Your task to perform on an android device: manage bookmarks in the chrome app Image 0: 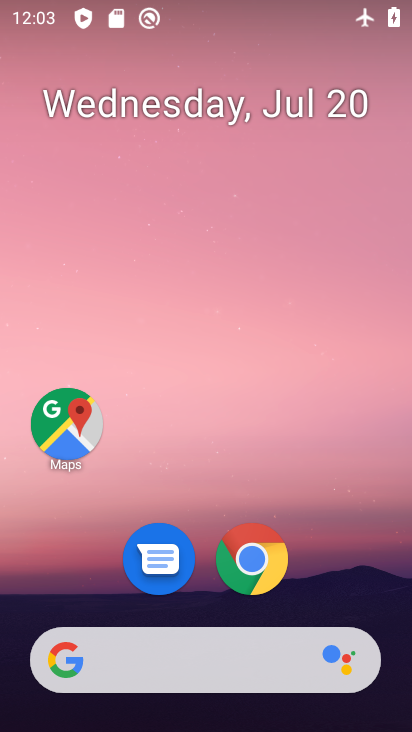
Step 0: drag from (388, 556) to (390, 148)
Your task to perform on an android device: manage bookmarks in the chrome app Image 1: 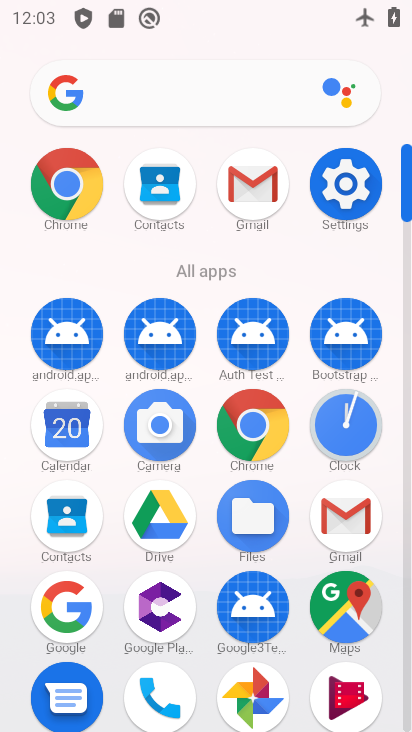
Step 1: click (250, 430)
Your task to perform on an android device: manage bookmarks in the chrome app Image 2: 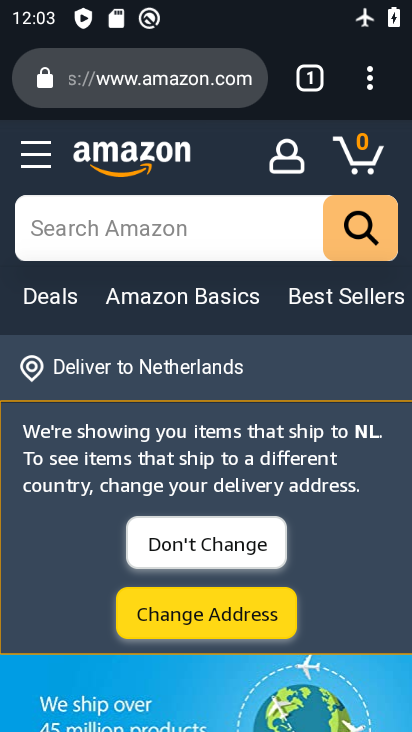
Step 2: click (373, 92)
Your task to perform on an android device: manage bookmarks in the chrome app Image 3: 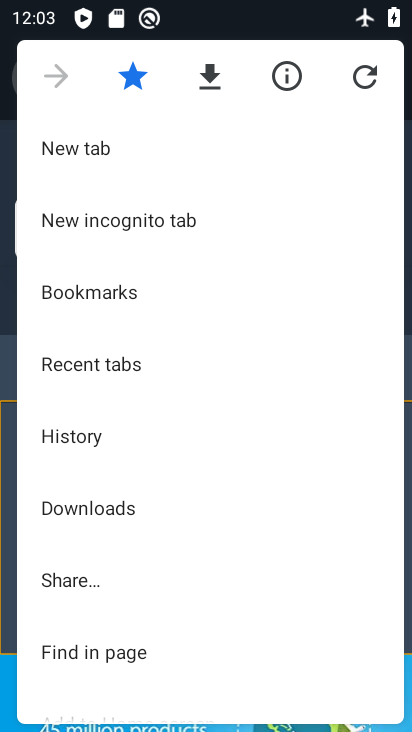
Step 3: drag from (308, 325) to (303, 275)
Your task to perform on an android device: manage bookmarks in the chrome app Image 4: 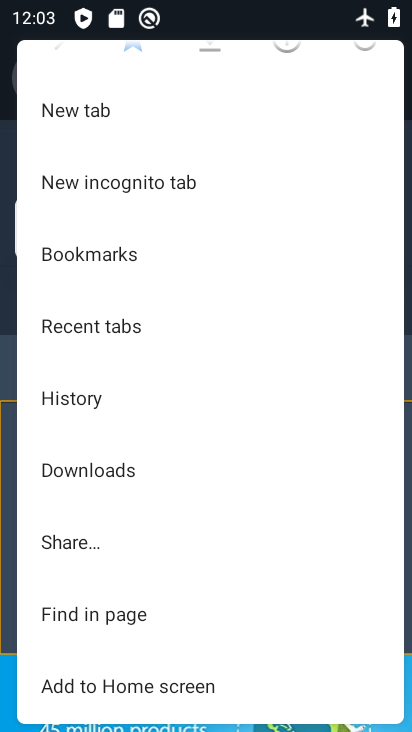
Step 4: click (191, 277)
Your task to perform on an android device: manage bookmarks in the chrome app Image 5: 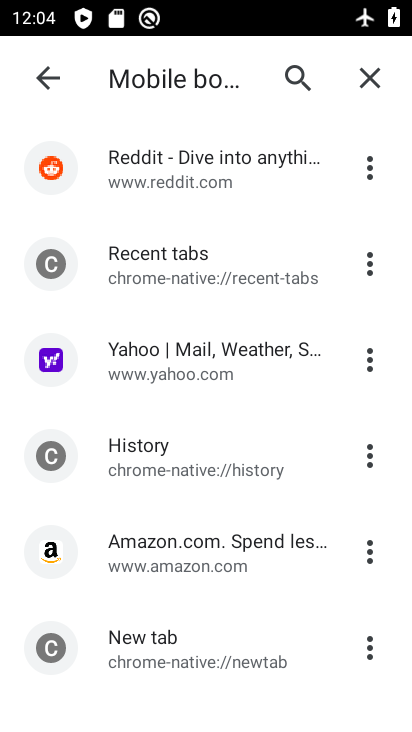
Step 5: click (370, 177)
Your task to perform on an android device: manage bookmarks in the chrome app Image 6: 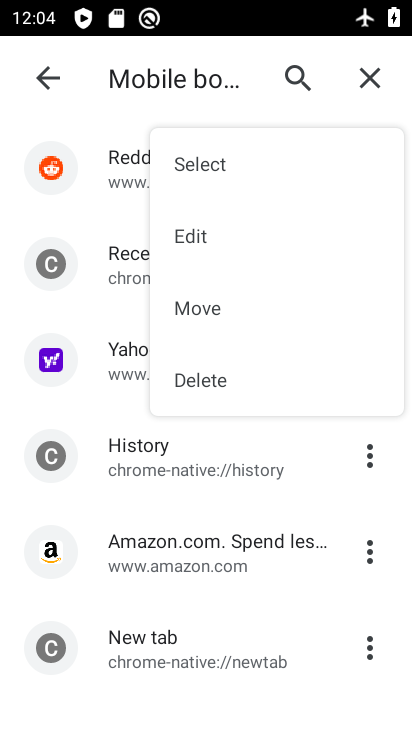
Step 6: click (207, 253)
Your task to perform on an android device: manage bookmarks in the chrome app Image 7: 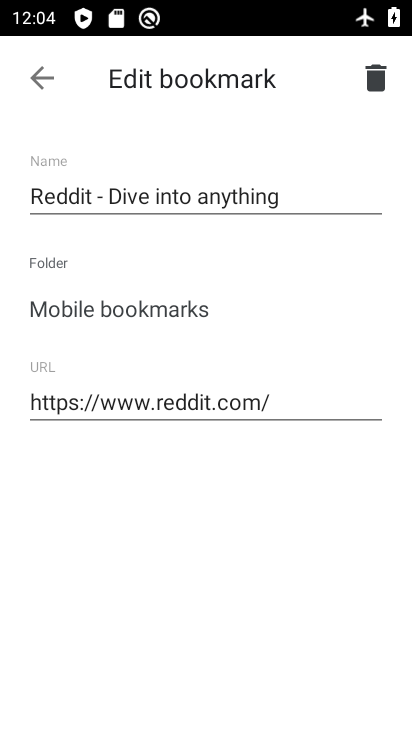
Step 7: click (290, 198)
Your task to perform on an android device: manage bookmarks in the chrome app Image 8: 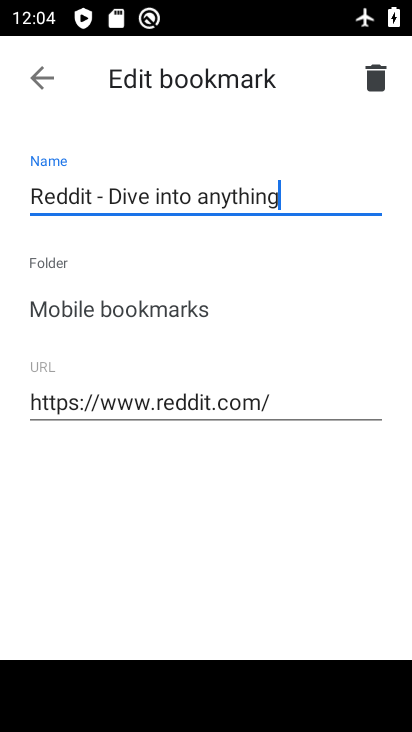
Step 8: type "f"
Your task to perform on an android device: manage bookmarks in the chrome app Image 9: 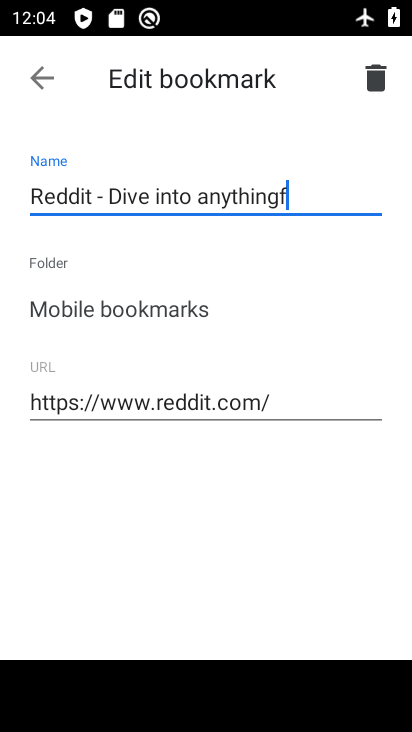
Step 9: click (30, 81)
Your task to perform on an android device: manage bookmarks in the chrome app Image 10: 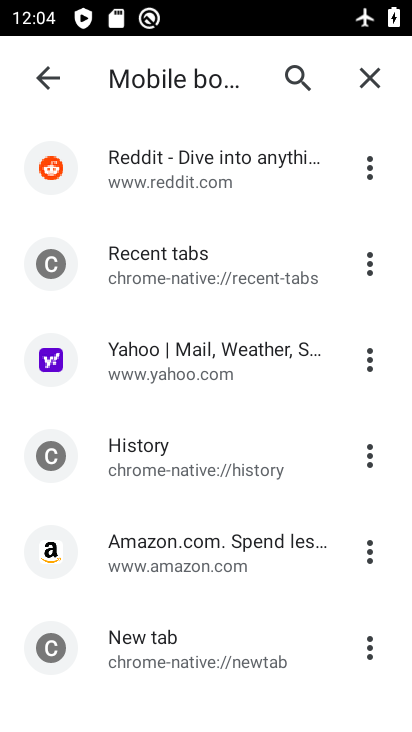
Step 10: task complete